Your task to perform on an android device: Open Wikipedia Image 0: 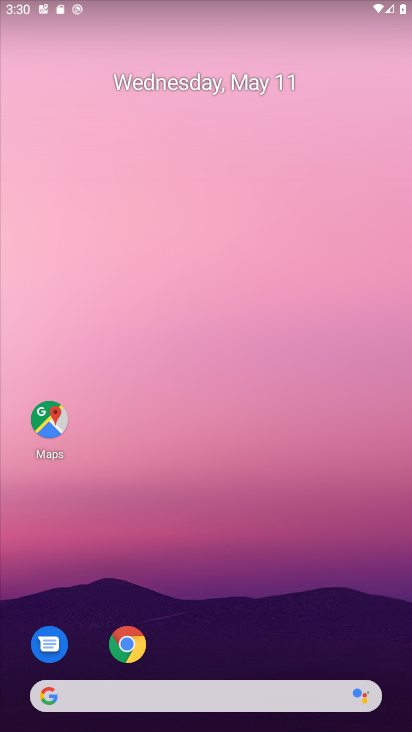
Step 0: click (139, 655)
Your task to perform on an android device: Open Wikipedia Image 1: 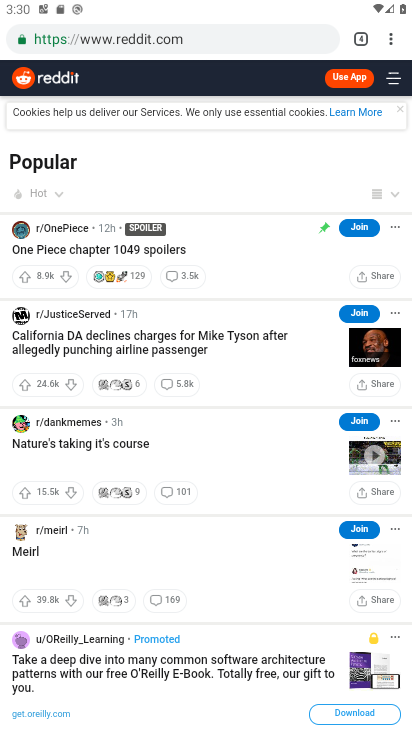
Step 1: click (364, 37)
Your task to perform on an android device: Open Wikipedia Image 2: 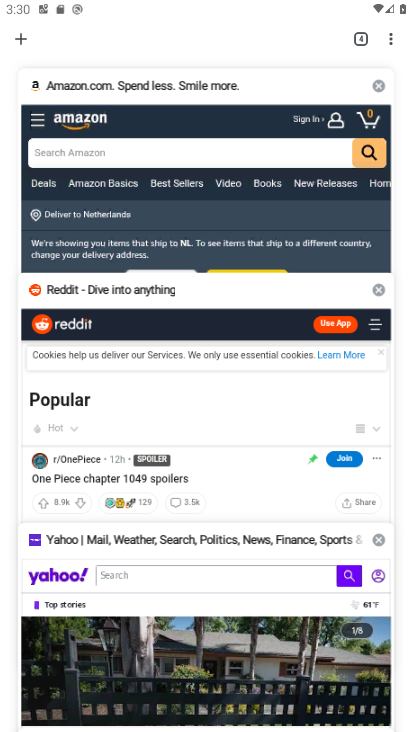
Step 2: click (26, 44)
Your task to perform on an android device: Open Wikipedia Image 3: 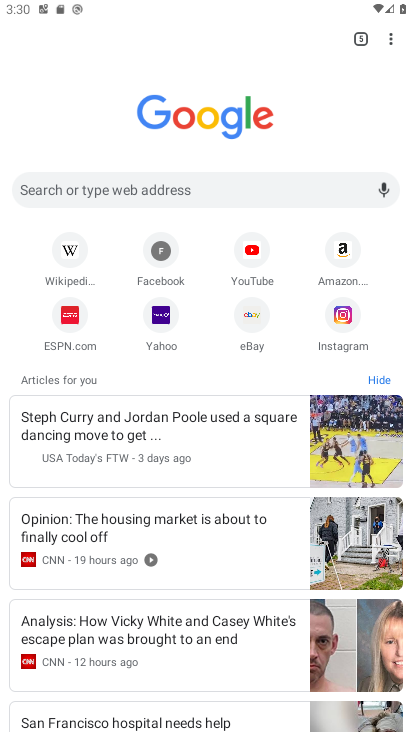
Step 3: click (73, 245)
Your task to perform on an android device: Open Wikipedia Image 4: 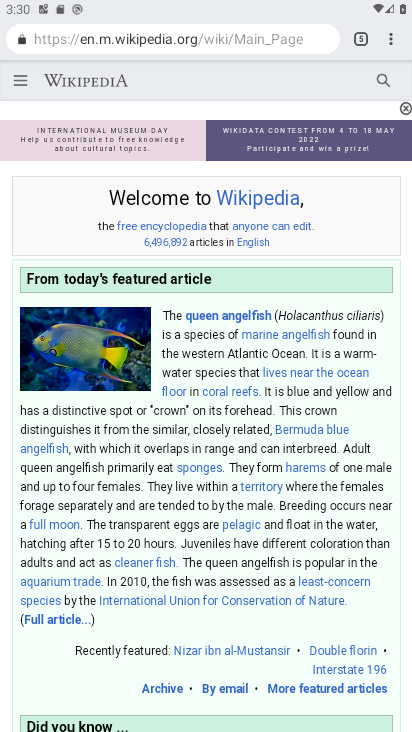
Step 4: task complete